Your task to perform on an android device: check storage Image 0: 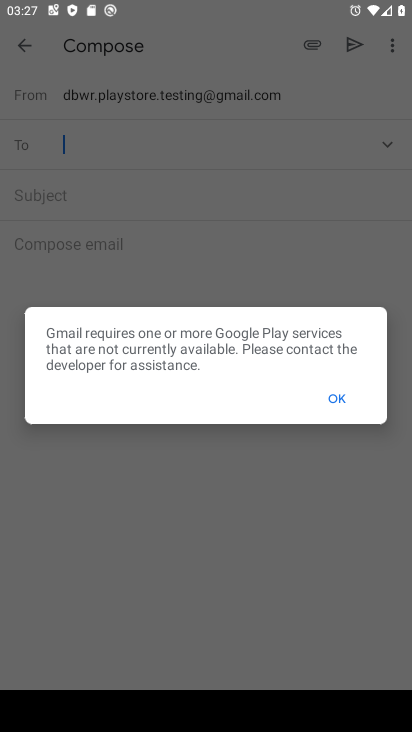
Step 0: press back button
Your task to perform on an android device: check storage Image 1: 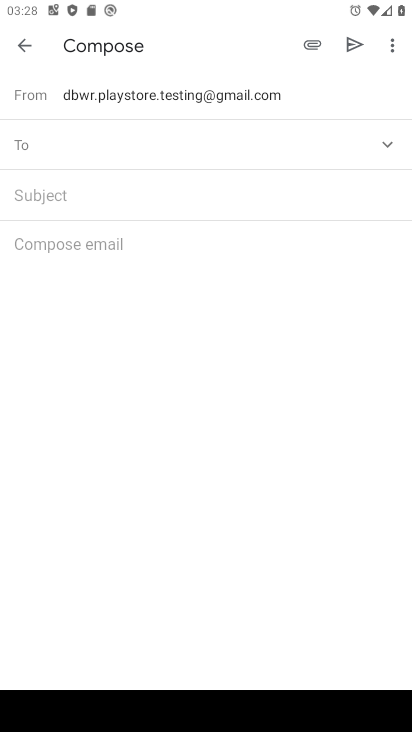
Step 1: press home button
Your task to perform on an android device: check storage Image 2: 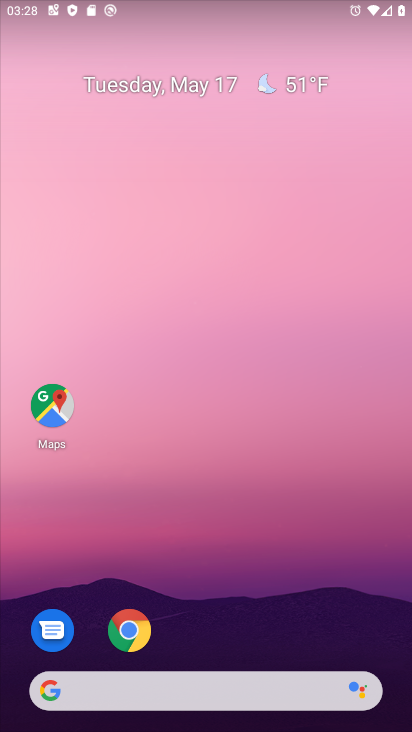
Step 2: drag from (193, 592) to (283, 8)
Your task to perform on an android device: check storage Image 3: 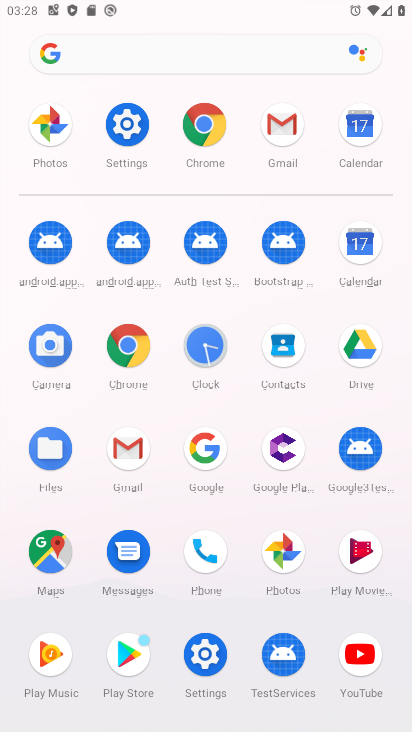
Step 3: click (128, 102)
Your task to perform on an android device: check storage Image 4: 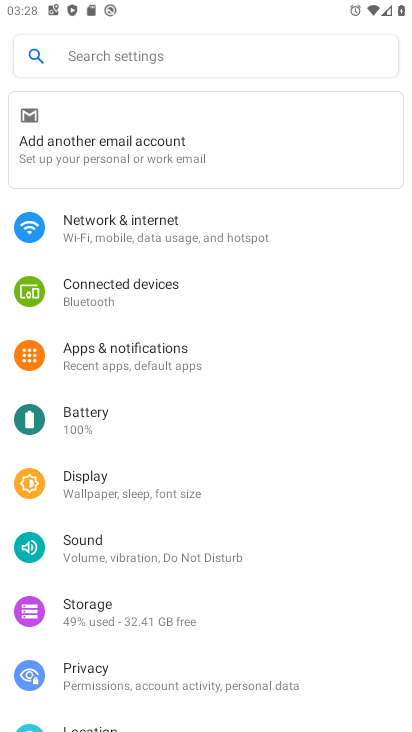
Step 4: click (97, 615)
Your task to perform on an android device: check storage Image 5: 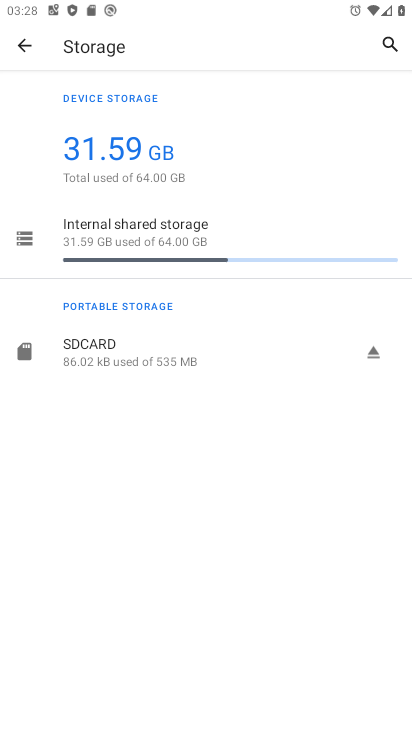
Step 5: task complete